Your task to perform on an android device: open wifi settings Image 0: 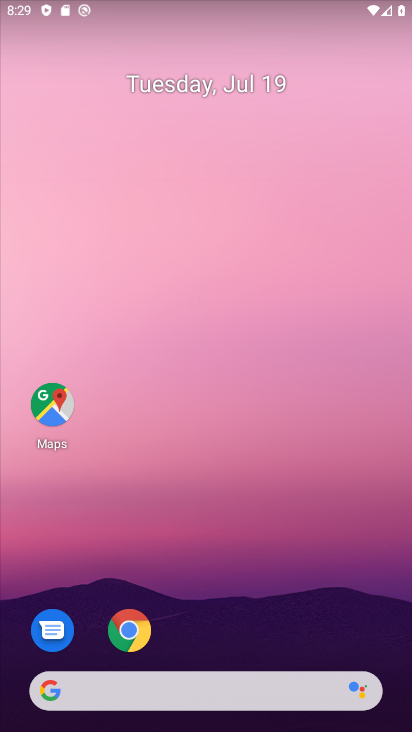
Step 0: drag from (225, 668) to (263, 173)
Your task to perform on an android device: open wifi settings Image 1: 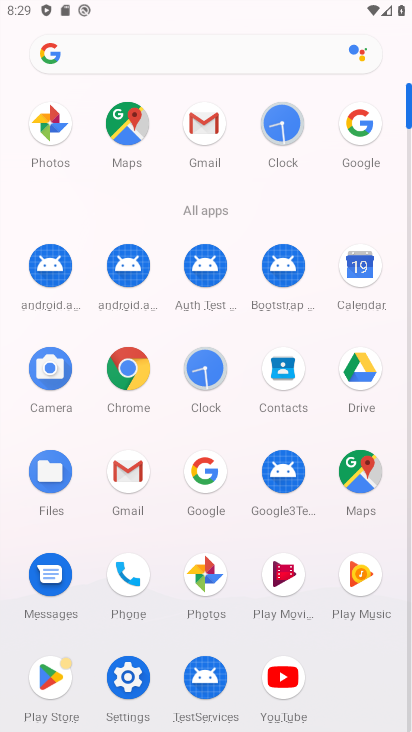
Step 1: click (127, 682)
Your task to perform on an android device: open wifi settings Image 2: 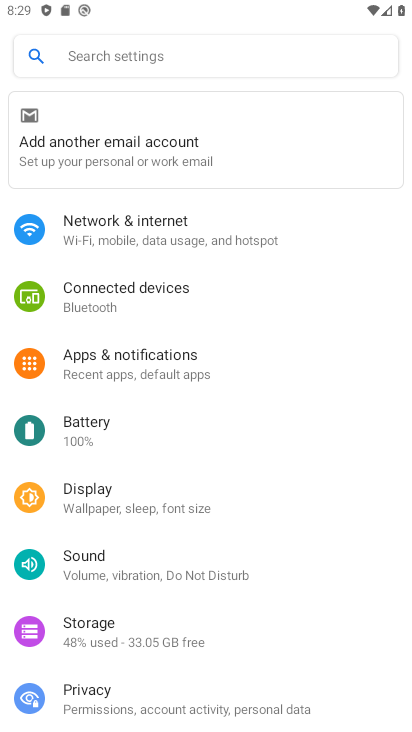
Step 2: click (201, 226)
Your task to perform on an android device: open wifi settings Image 3: 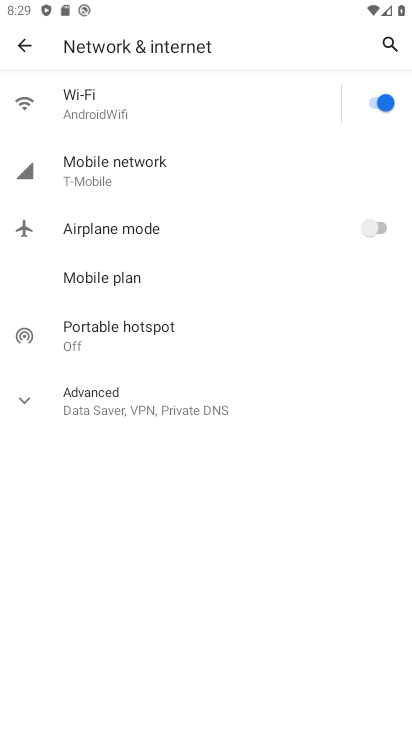
Step 3: click (146, 120)
Your task to perform on an android device: open wifi settings Image 4: 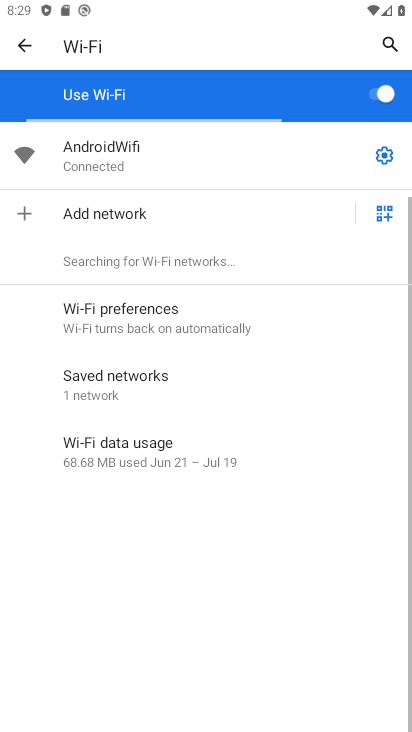
Step 4: click (160, 147)
Your task to perform on an android device: open wifi settings Image 5: 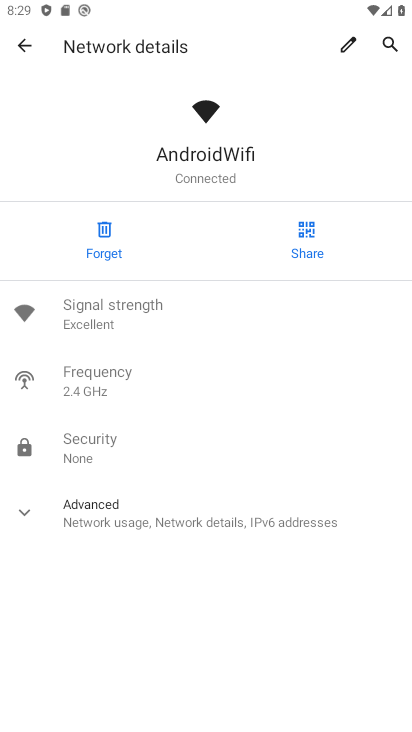
Step 5: task complete